Your task to perform on an android device: turn on translation in the chrome app Image 0: 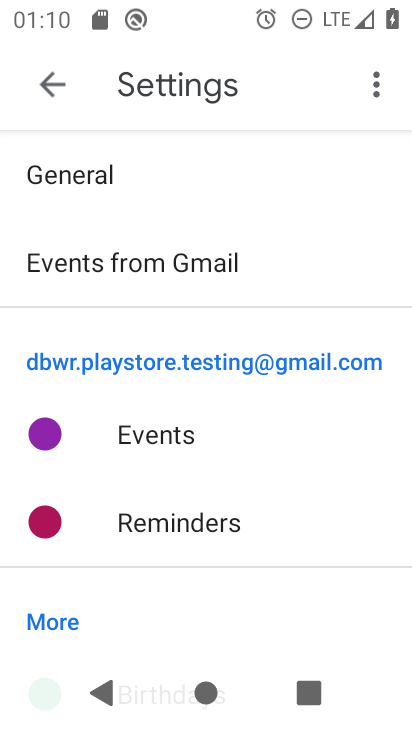
Step 0: press home button
Your task to perform on an android device: turn on translation in the chrome app Image 1: 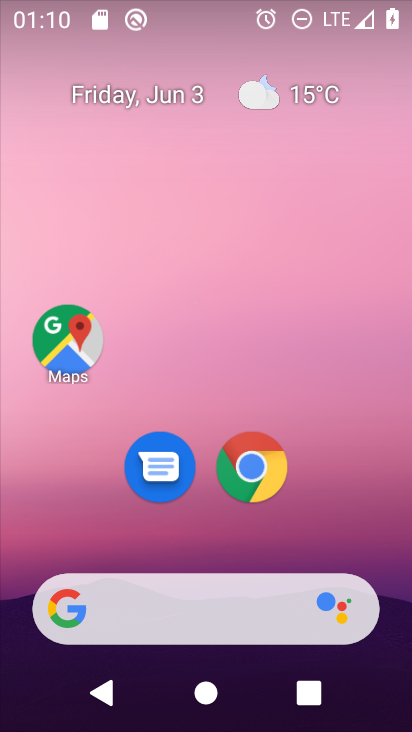
Step 1: click (251, 465)
Your task to perform on an android device: turn on translation in the chrome app Image 2: 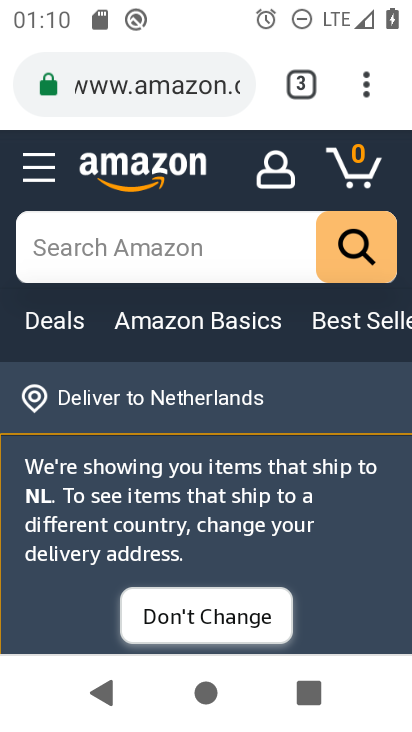
Step 2: click (361, 90)
Your task to perform on an android device: turn on translation in the chrome app Image 3: 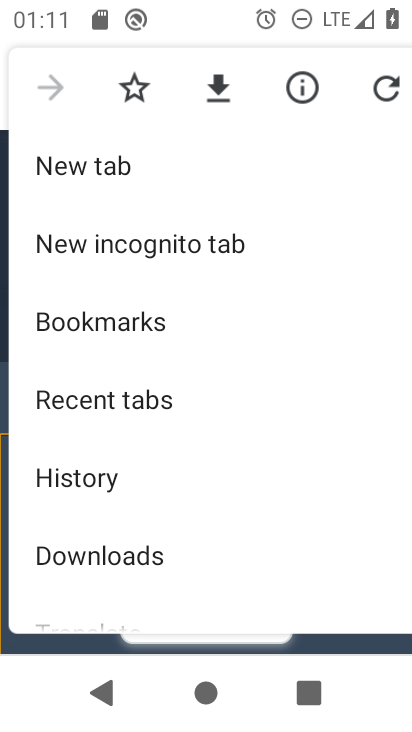
Step 3: drag from (224, 567) to (287, 202)
Your task to perform on an android device: turn on translation in the chrome app Image 4: 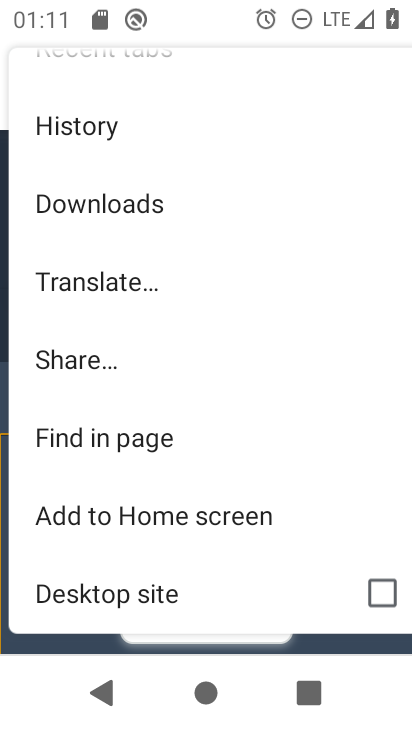
Step 4: drag from (282, 542) to (256, 139)
Your task to perform on an android device: turn on translation in the chrome app Image 5: 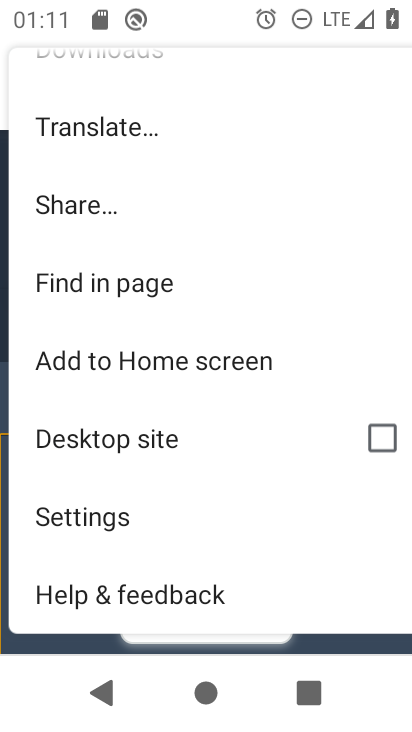
Step 5: click (90, 525)
Your task to perform on an android device: turn on translation in the chrome app Image 6: 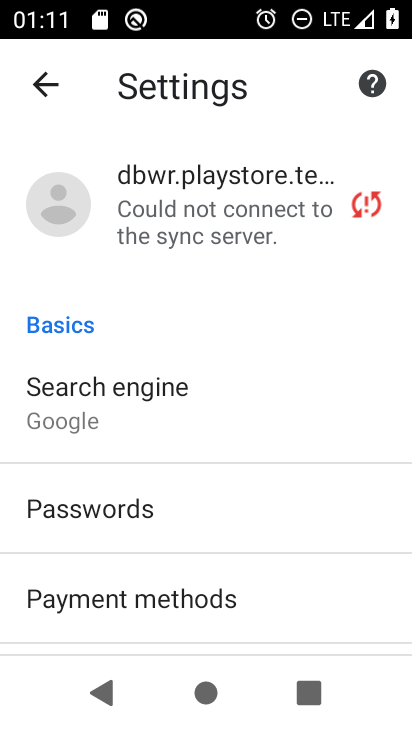
Step 6: drag from (262, 594) to (278, 47)
Your task to perform on an android device: turn on translation in the chrome app Image 7: 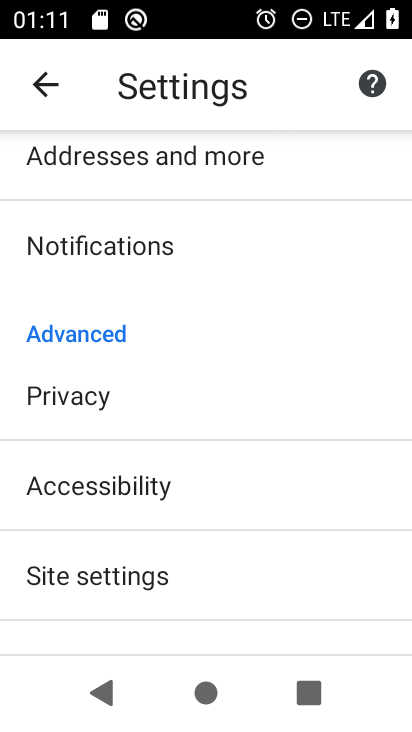
Step 7: drag from (214, 592) to (248, 273)
Your task to perform on an android device: turn on translation in the chrome app Image 8: 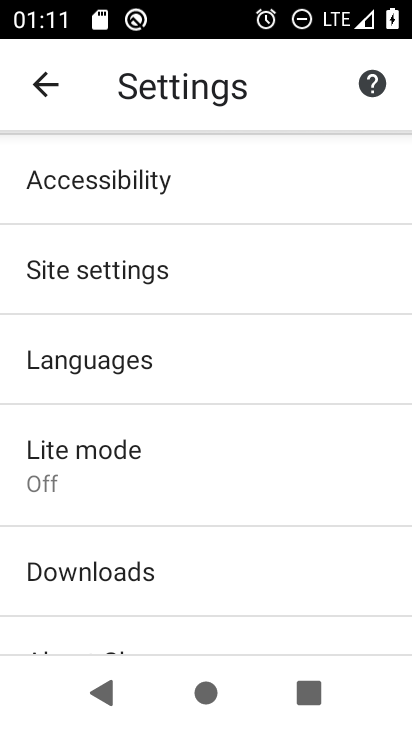
Step 8: click (86, 360)
Your task to perform on an android device: turn on translation in the chrome app Image 9: 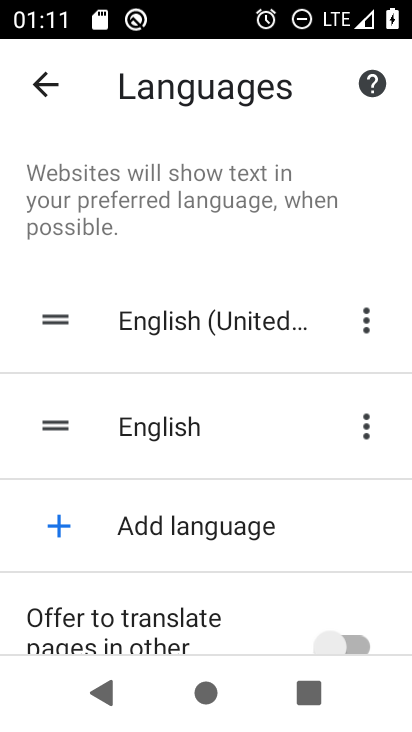
Step 9: drag from (238, 629) to (281, 233)
Your task to perform on an android device: turn on translation in the chrome app Image 10: 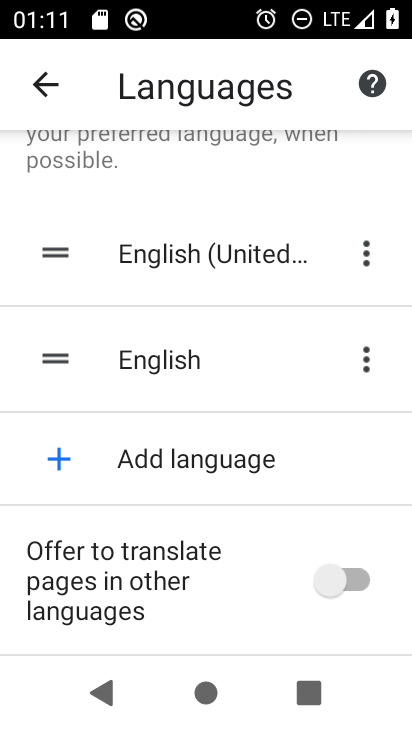
Step 10: click (360, 585)
Your task to perform on an android device: turn on translation in the chrome app Image 11: 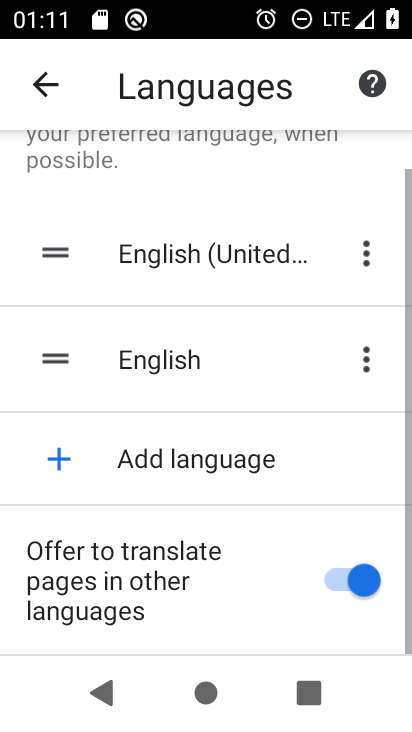
Step 11: task complete